Your task to perform on an android device: open app "Google Duo" Image 0: 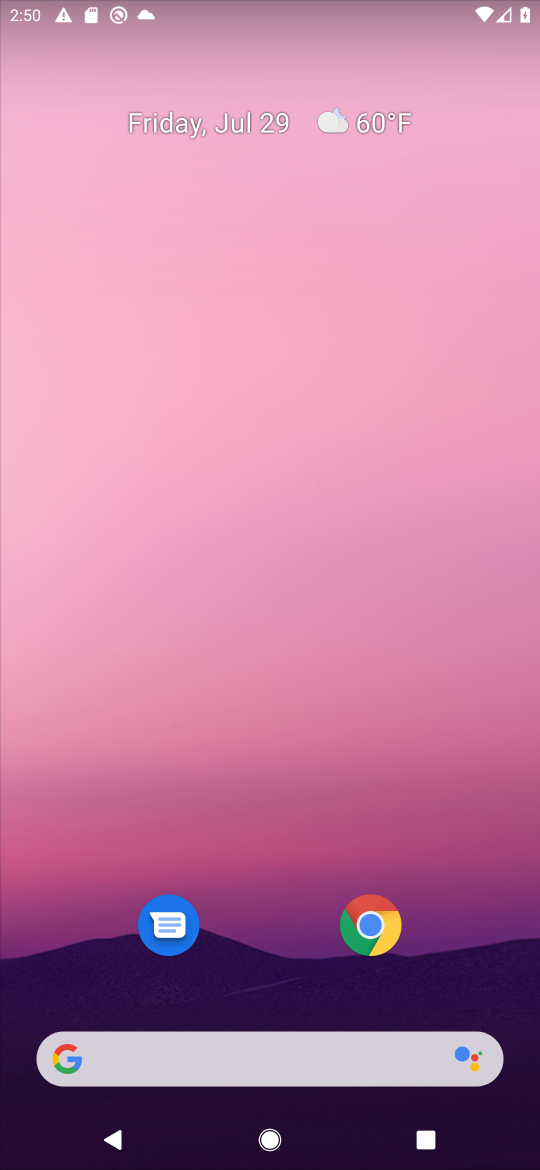
Step 0: drag from (401, 983) to (479, 46)
Your task to perform on an android device: open app "Google Duo" Image 1: 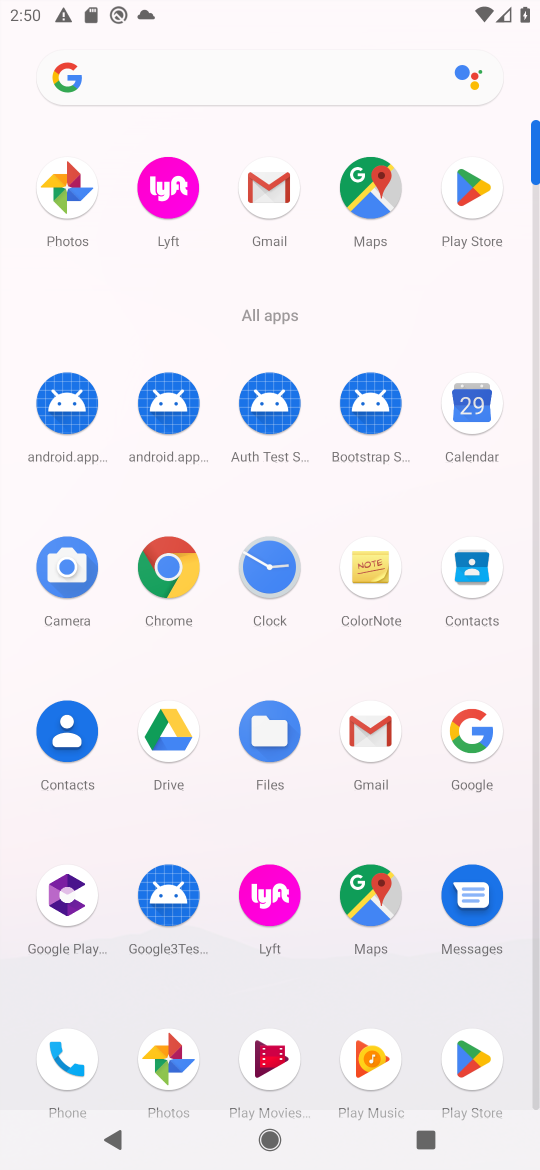
Step 1: click (470, 202)
Your task to perform on an android device: open app "Google Duo" Image 2: 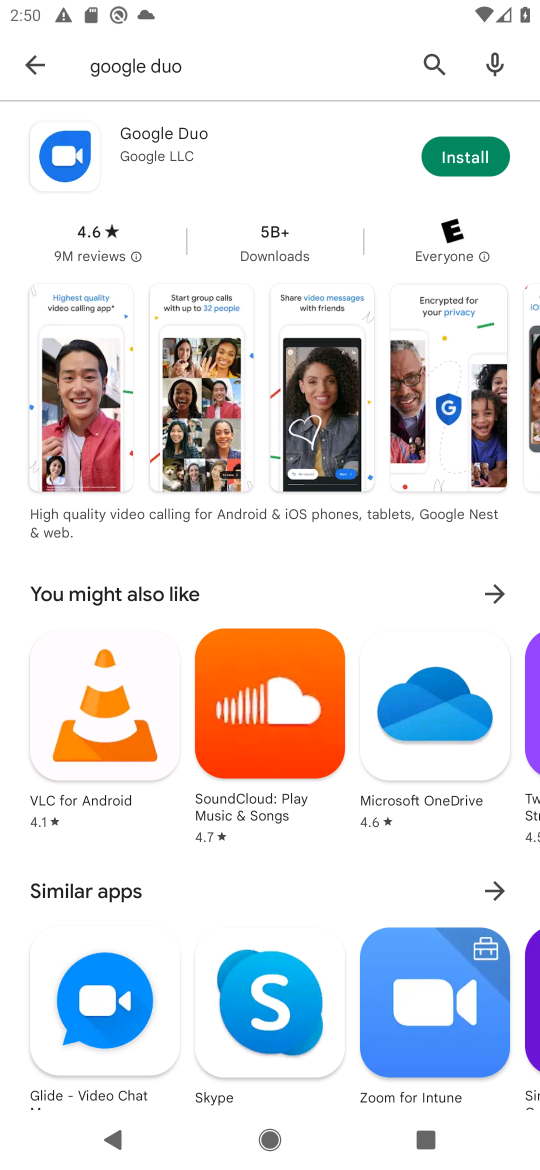
Step 2: task complete